Your task to perform on an android device: Go to CNN.com Image 0: 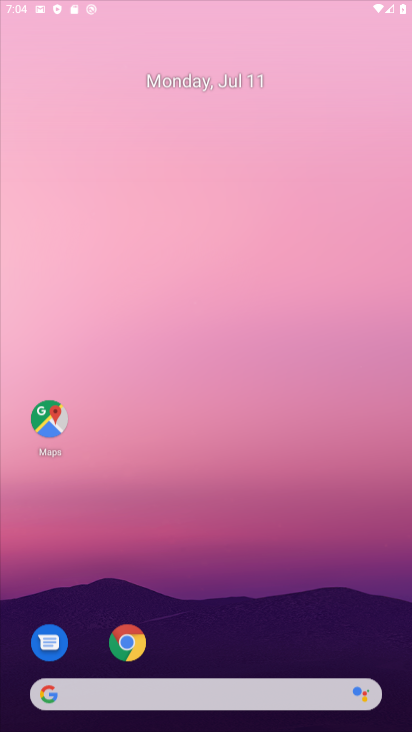
Step 0: press home button
Your task to perform on an android device: Go to CNN.com Image 1: 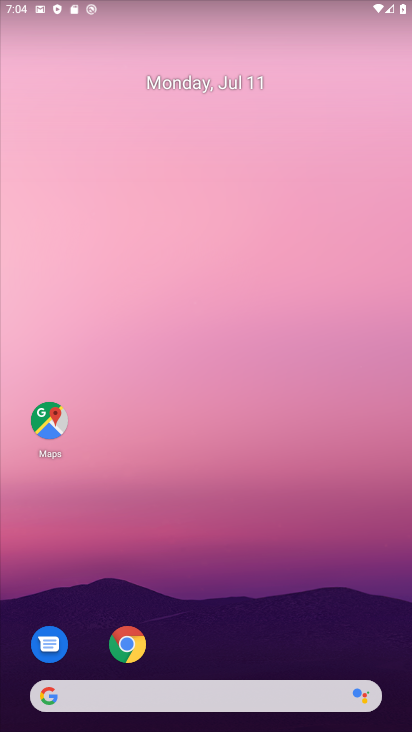
Step 1: click (167, 694)
Your task to perform on an android device: Go to CNN.com Image 2: 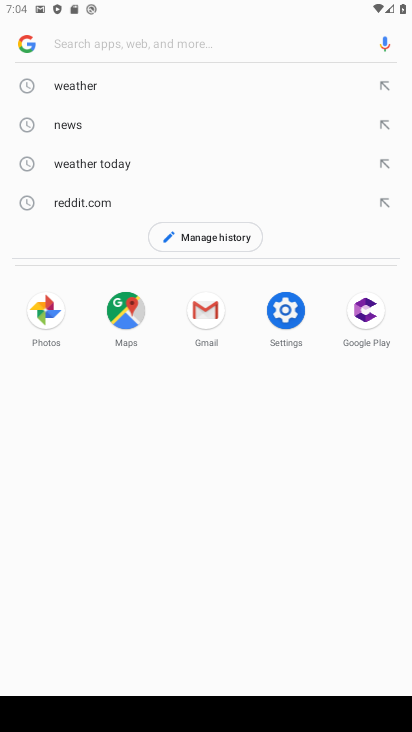
Step 2: type "cnn.com"
Your task to perform on an android device: Go to CNN.com Image 3: 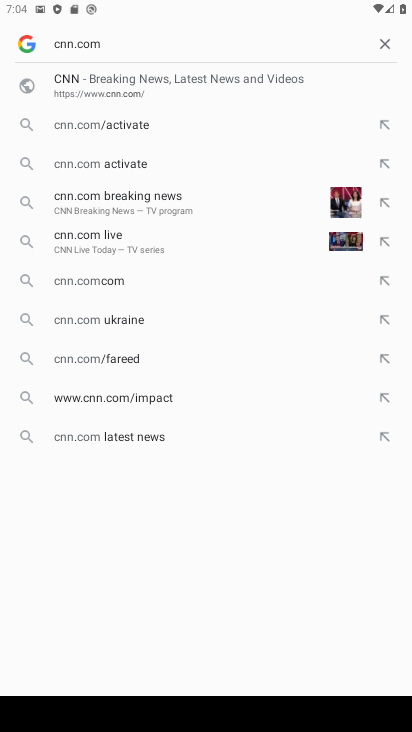
Step 3: click (107, 78)
Your task to perform on an android device: Go to CNN.com Image 4: 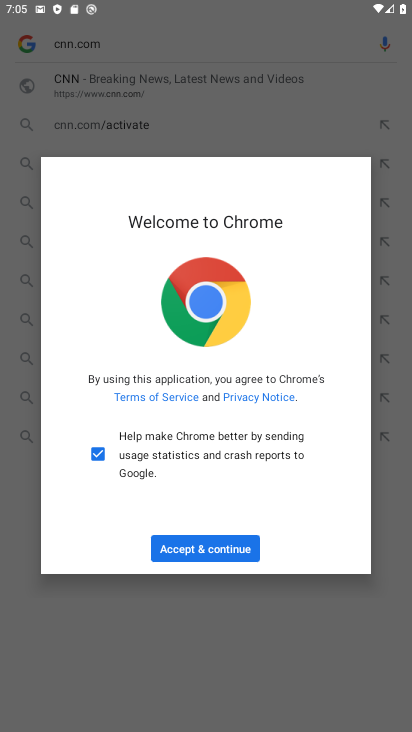
Step 4: click (202, 544)
Your task to perform on an android device: Go to CNN.com Image 5: 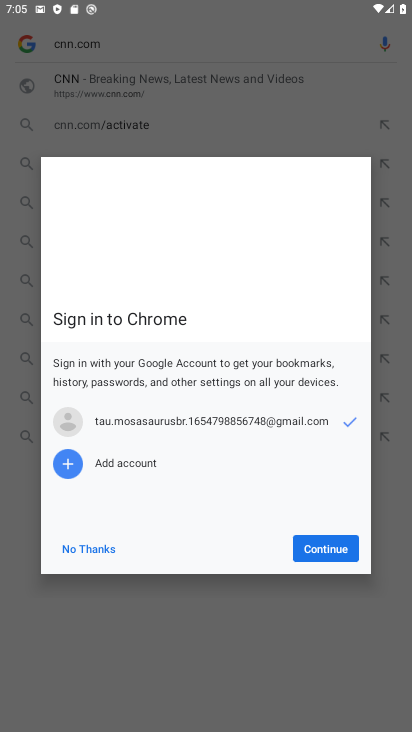
Step 5: click (342, 554)
Your task to perform on an android device: Go to CNN.com Image 6: 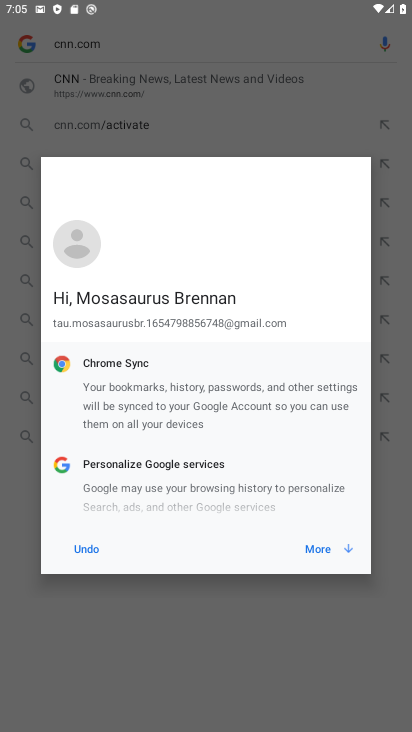
Step 6: click (342, 554)
Your task to perform on an android device: Go to CNN.com Image 7: 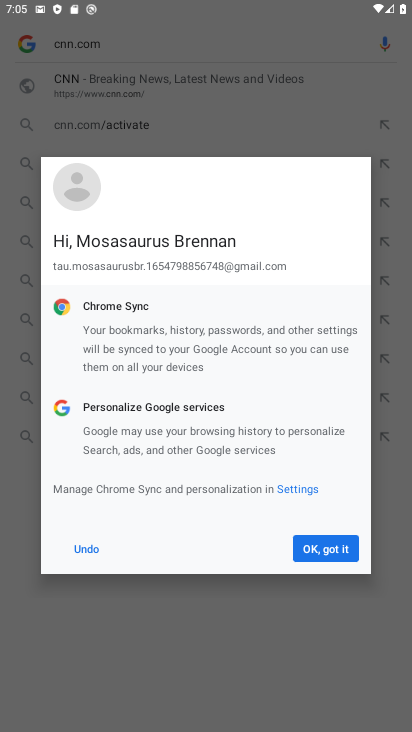
Step 7: click (310, 555)
Your task to perform on an android device: Go to CNN.com Image 8: 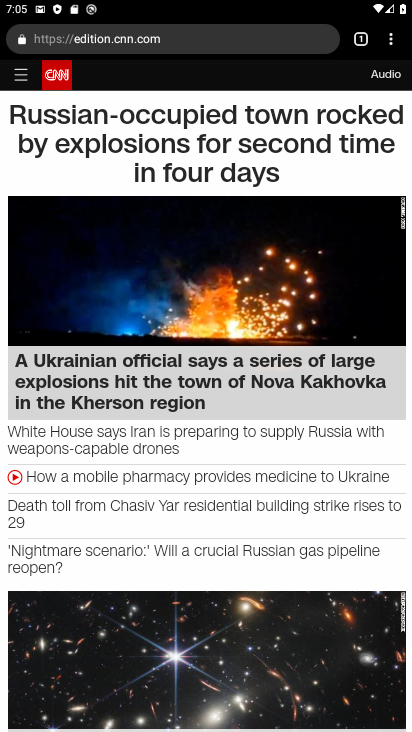
Step 8: task complete